Your task to perform on an android device: Go to eBay Image 0: 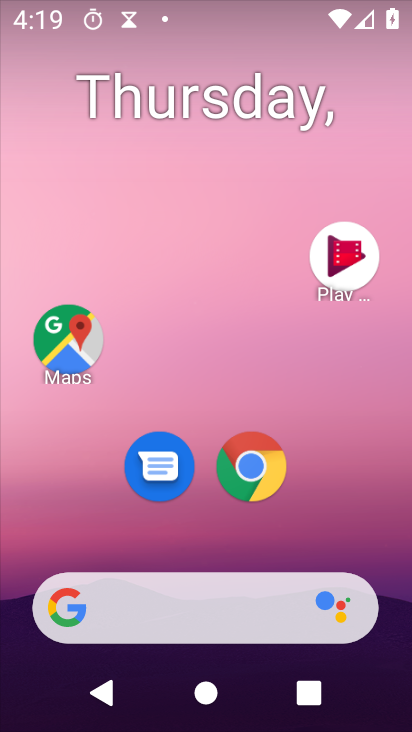
Step 0: drag from (211, 575) to (251, 6)
Your task to perform on an android device: Go to eBay Image 1: 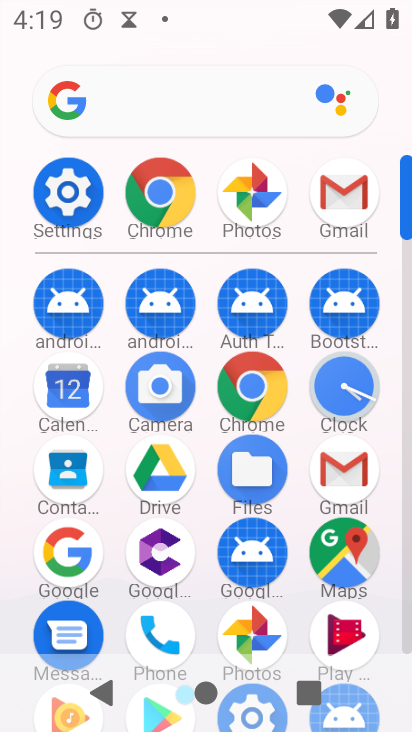
Step 1: click (271, 388)
Your task to perform on an android device: Go to eBay Image 2: 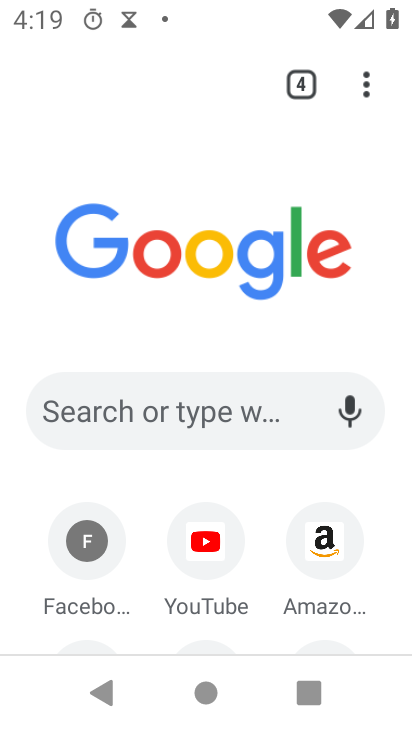
Step 2: click (282, 388)
Your task to perform on an android device: Go to eBay Image 3: 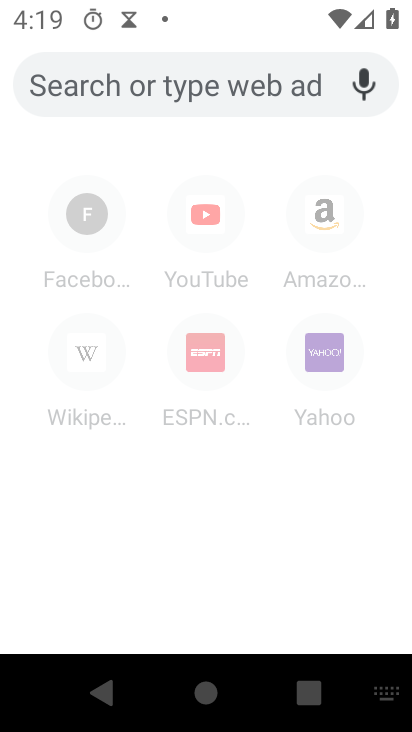
Step 3: type "ebay"
Your task to perform on an android device: Go to eBay Image 4: 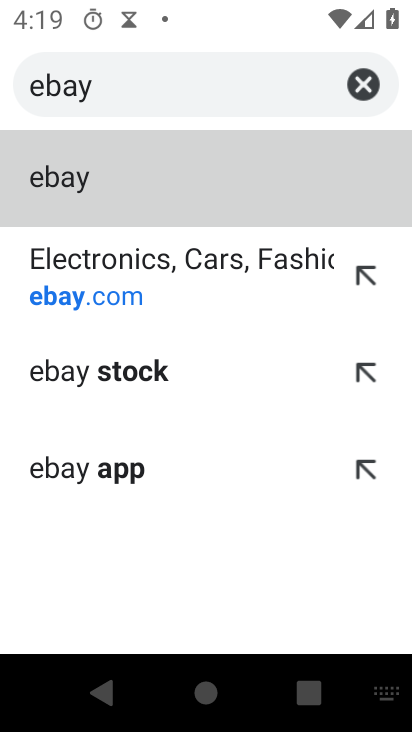
Step 4: click (100, 266)
Your task to perform on an android device: Go to eBay Image 5: 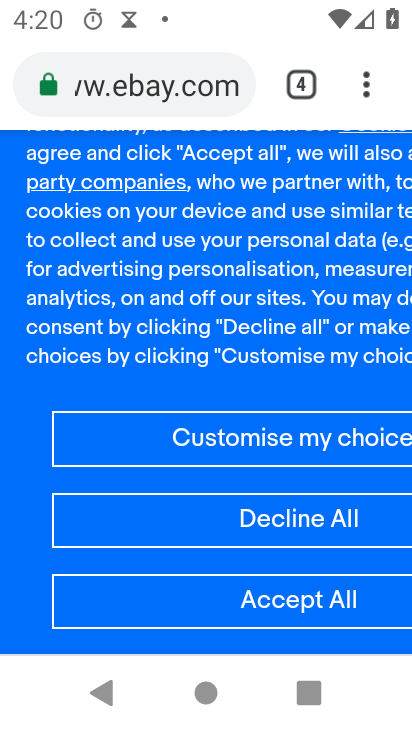
Step 5: task complete